Your task to perform on an android device: Check the news Image 0: 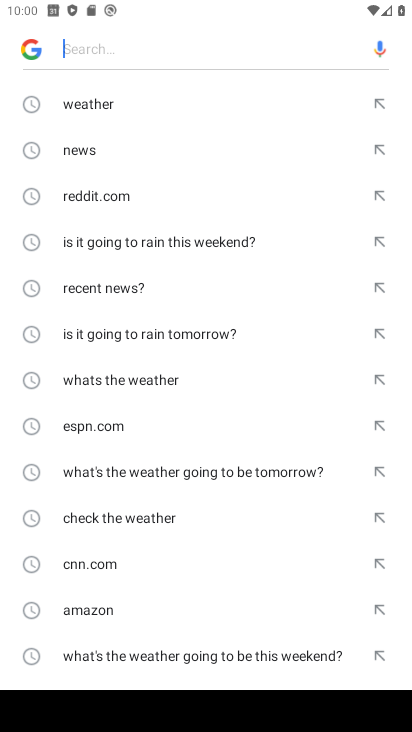
Step 0: task impossible